Your task to perform on an android device: toggle airplane mode Image 0: 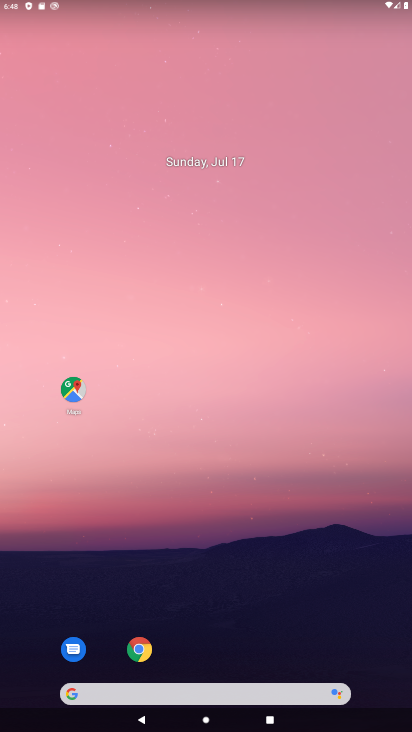
Step 0: drag from (239, 568) to (247, 155)
Your task to perform on an android device: toggle airplane mode Image 1: 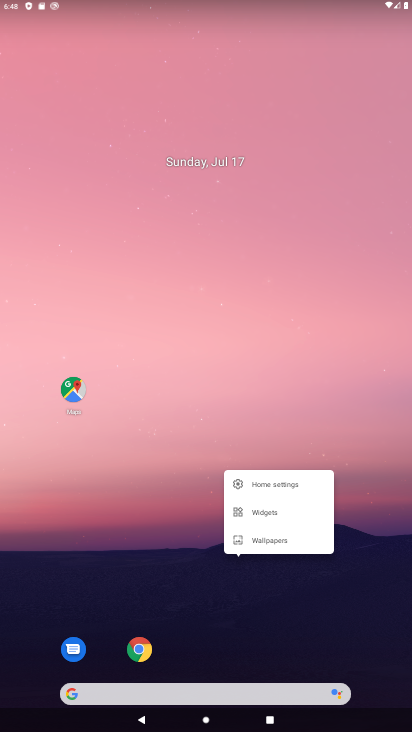
Step 1: click (156, 472)
Your task to perform on an android device: toggle airplane mode Image 2: 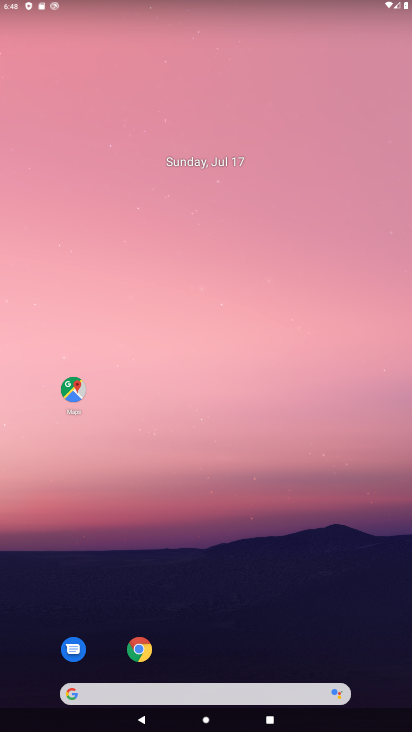
Step 2: drag from (243, 583) to (281, 6)
Your task to perform on an android device: toggle airplane mode Image 3: 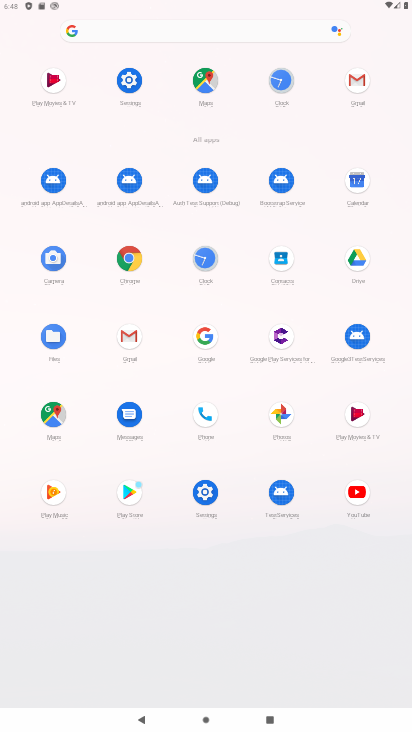
Step 3: click (131, 75)
Your task to perform on an android device: toggle airplane mode Image 4: 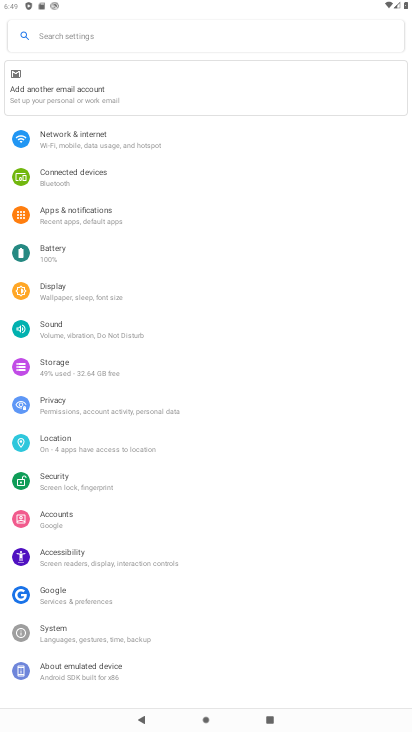
Step 4: click (70, 126)
Your task to perform on an android device: toggle airplane mode Image 5: 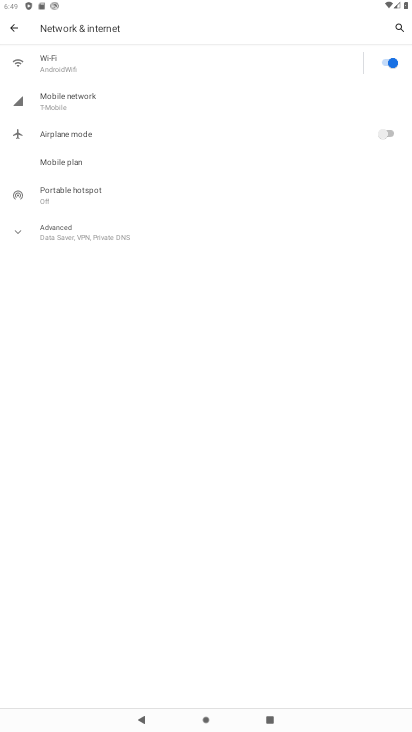
Step 5: click (386, 132)
Your task to perform on an android device: toggle airplane mode Image 6: 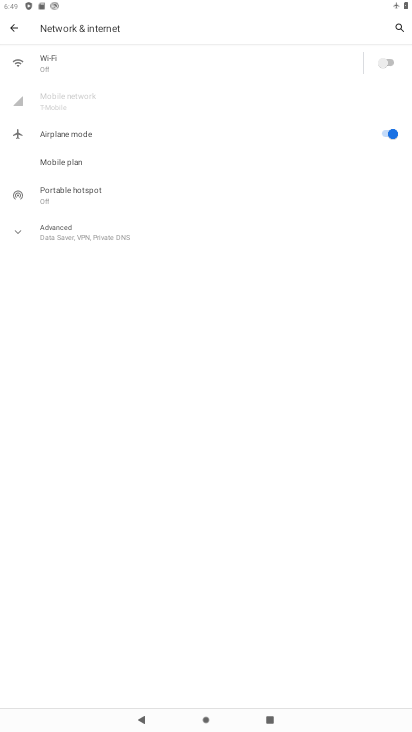
Step 6: task complete